Your task to perform on an android device: see sites visited before in the chrome app Image 0: 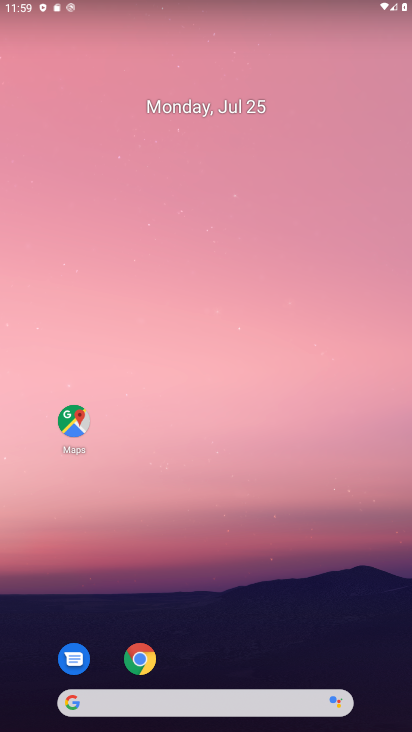
Step 0: drag from (241, 614) to (302, 68)
Your task to perform on an android device: see sites visited before in the chrome app Image 1: 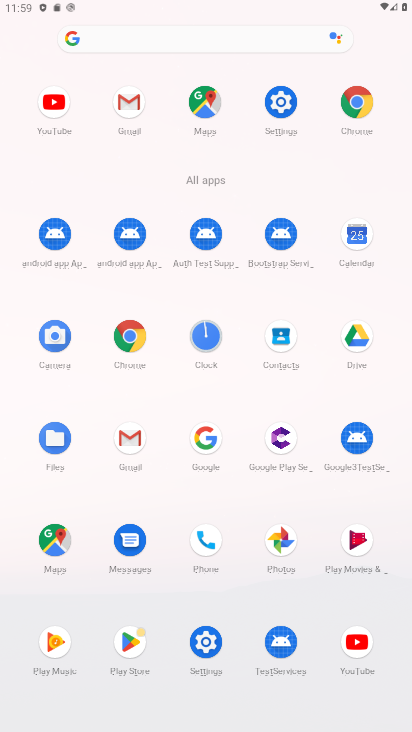
Step 1: click (127, 359)
Your task to perform on an android device: see sites visited before in the chrome app Image 2: 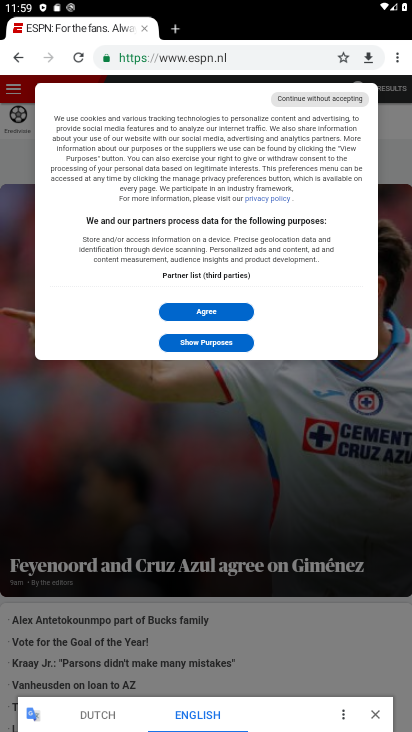
Step 2: drag from (394, 46) to (286, 410)
Your task to perform on an android device: see sites visited before in the chrome app Image 3: 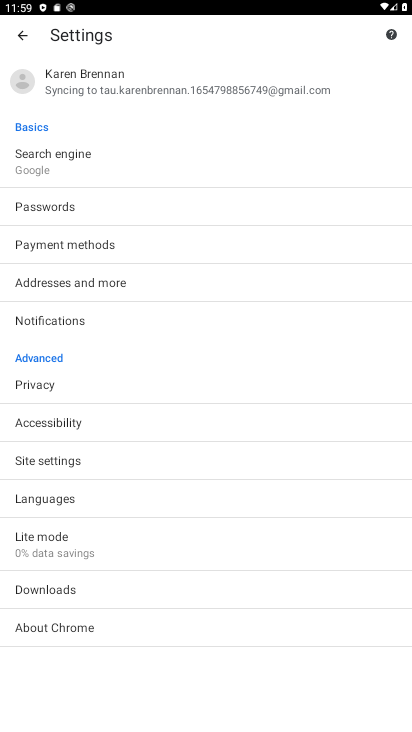
Step 3: click (19, 46)
Your task to perform on an android device: see sites visited before in the chrome app Image 4: 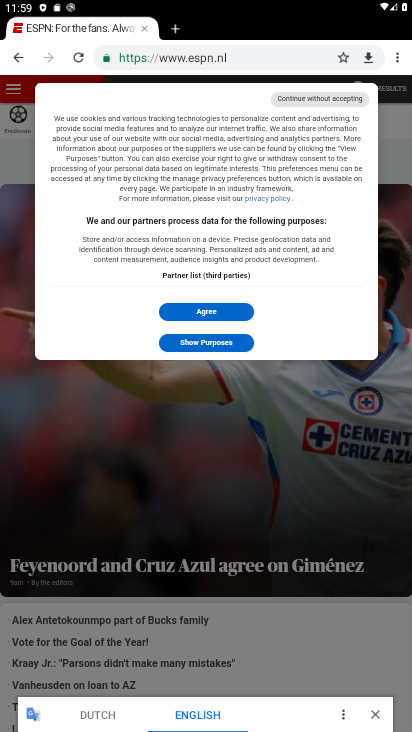
Step 4: task complete